Your task to perform on an android device: delete a single message in the gmail app Image 0: 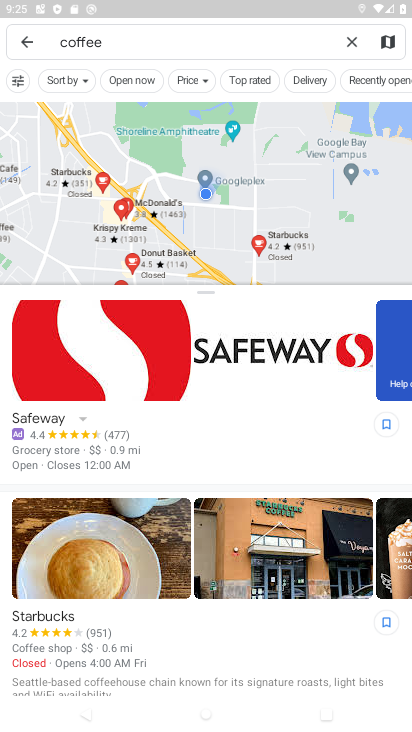
Step 0: press home button
Your task to perform on an android device: delete a single message in the gmail app Image 1: 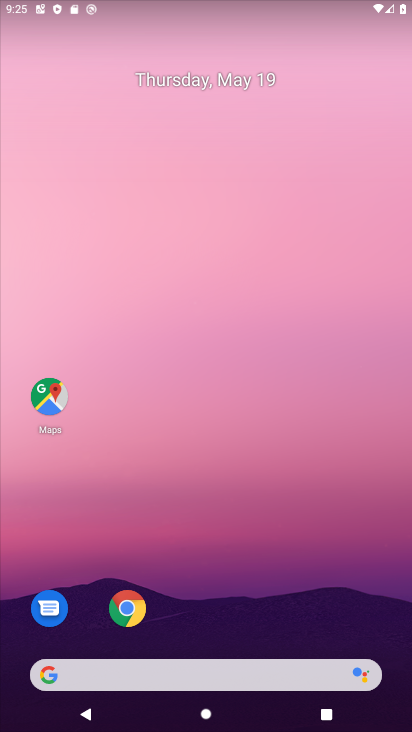
Step 1: drag from (199, 570) to (234, 205)
Your task to perform on an android device: delete a single message in the gmail app Image 2: 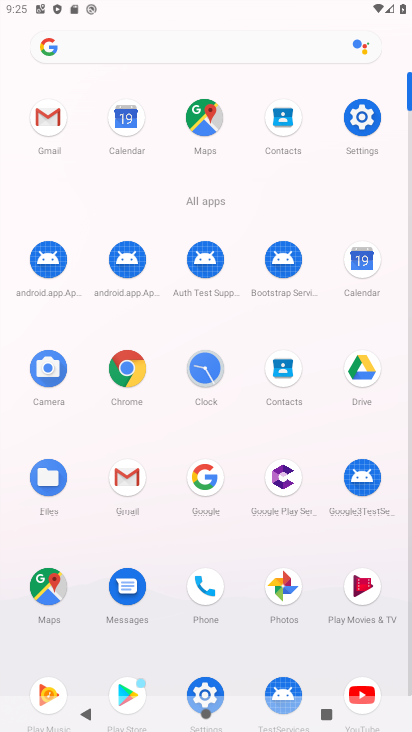
Step 2: click (48, 121)
Your task to perform on an android device: delete a single message in the gmail app Image 3: 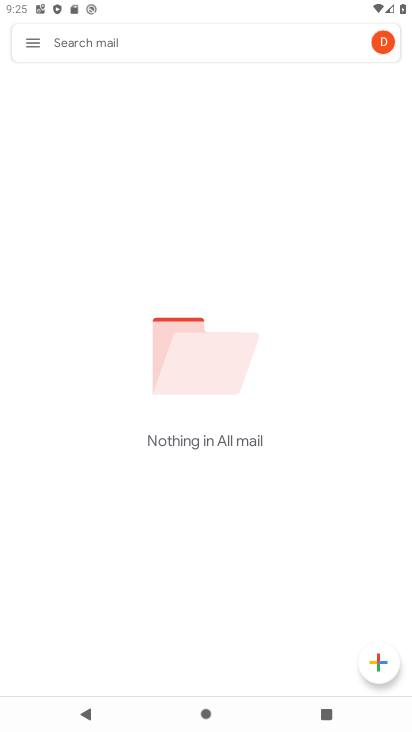
Step 3: click (32, 45)
Your task to perform on an android device: delete a single message in the gmail app Image 4: 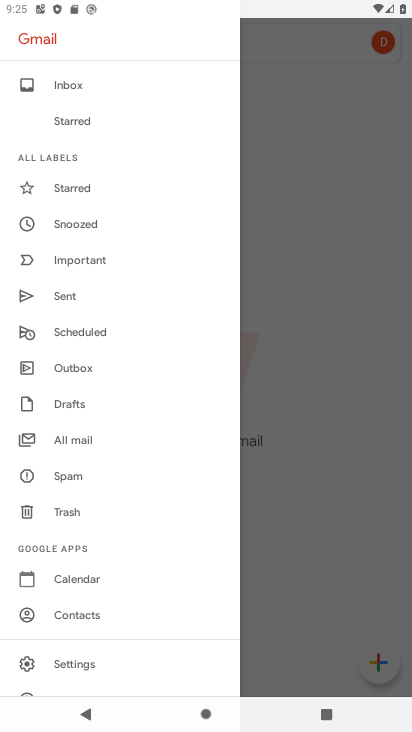
Step 4: click (67, 441)
Your task to perform on an android device: delete a single message in the gmail app Image 5: 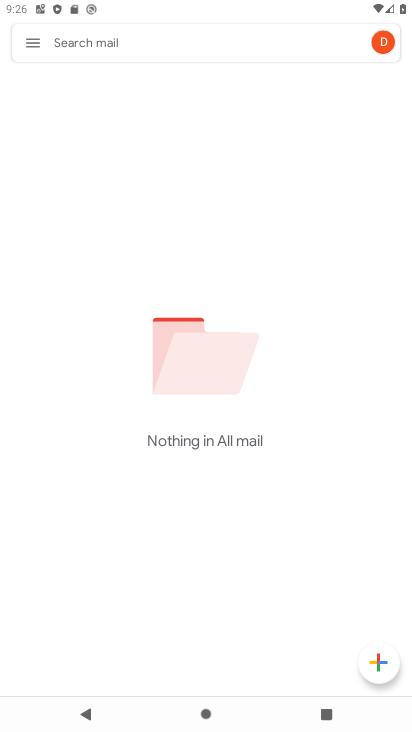
Step 5: task complete